Your task to perform on an android device: install app "Expedia: Hotels, Flights & Car" Image 0: 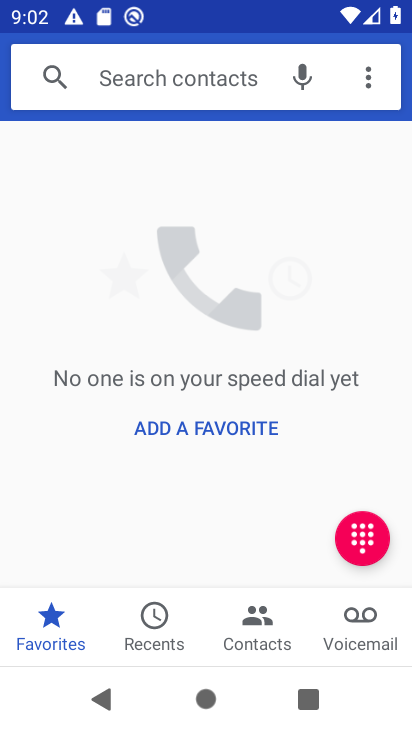
Step 0: press home button
Your task to perform on an android device: install app "Expedia: Hotels, Flights & Car" Image 1: 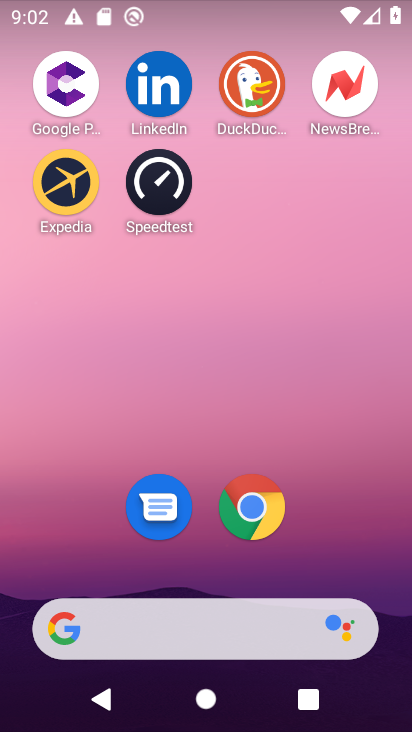
Step 1: drag from (147, 652) to (251, 138)
Your task to perform on an android device: install app "Expedia: Hotels, Flights & Car" Image 2: 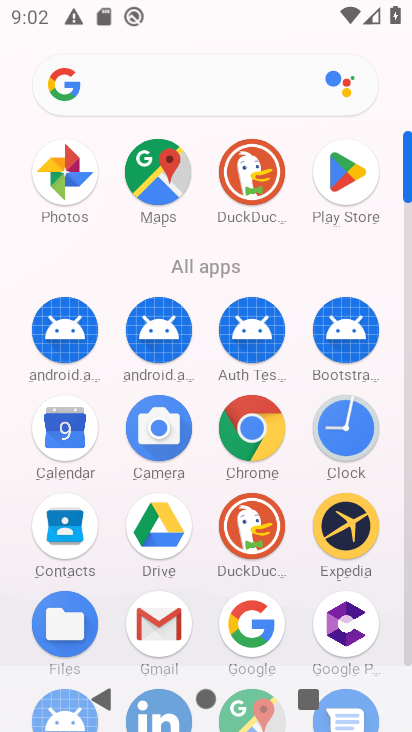
Step 2: click (349, 172)
Your task to perform on an android device: install app "Expedia: Hotels, Flights & Car" Image 3: 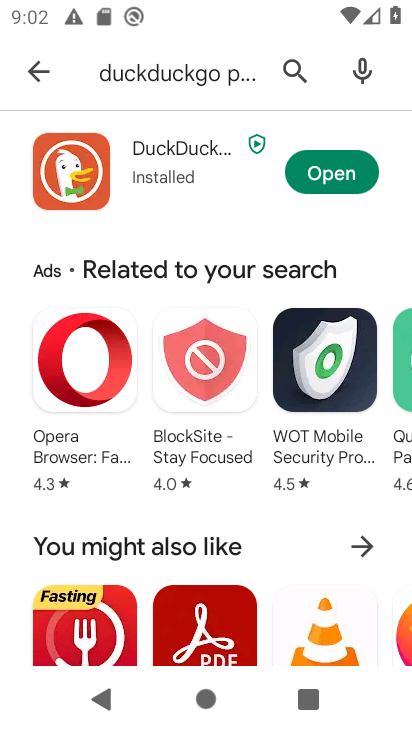
Step 3: click (286, 72)
Your task to perform on an android device: install app "Expedia: Hotels, Flights & Car" Image 4: 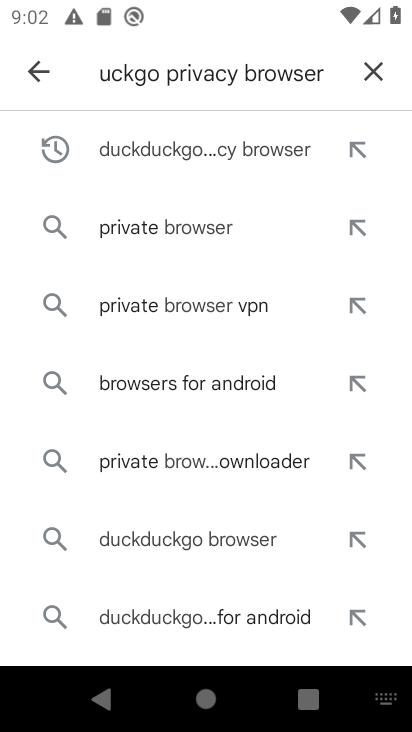
Step 4: click (376, 73)
Your task to perform on an android device: install app "Expedia: Hotels, Flights & Car" Image 5: 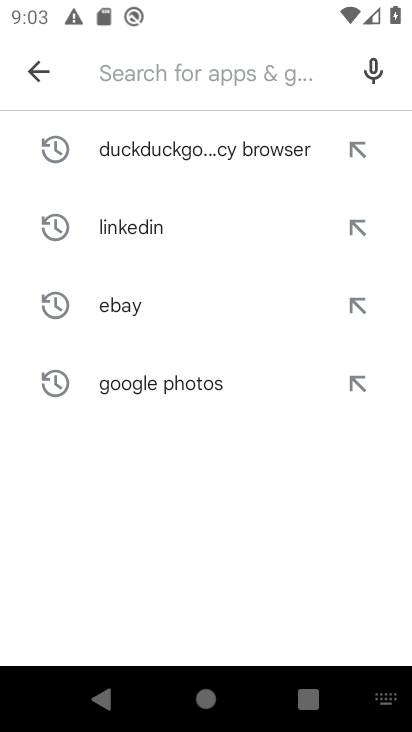
Step 5: type "Expedia: Hotels, Flights & Car"
Your task to perform on an android device: install app "Expedia: Hotels, Flights & Car" Image 6: 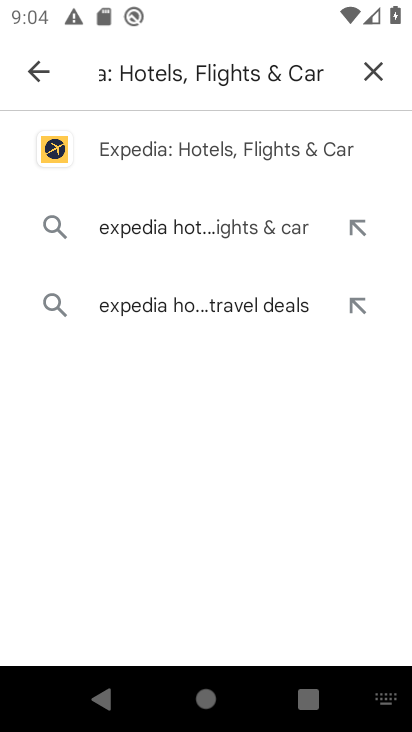
Step 6: click (205, 158)
Your task to perform on an android device: install app "Expedia: Hotels, Flights & Car" Image 7: 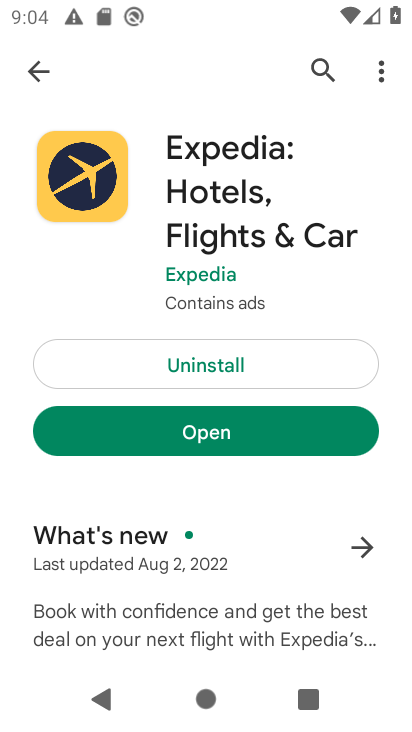
Step 7: task complete